Your task to perform on an android device: Open Yahoo.com Image 0: 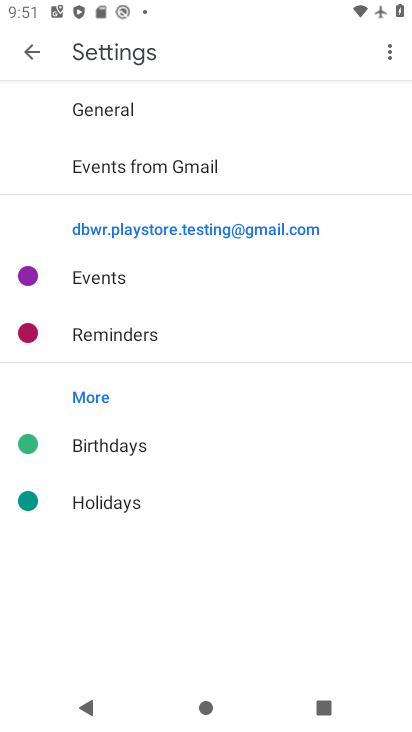
Step 0: press home button
Your task to perform on an android device: Open Yahoo.com Image 1: 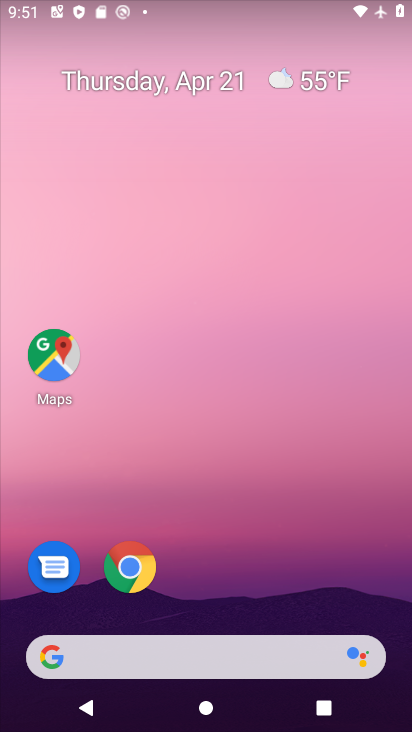
Step 1: click (127, 567)
Your task to perform on an android device: Open Yahoo.com Image 2: 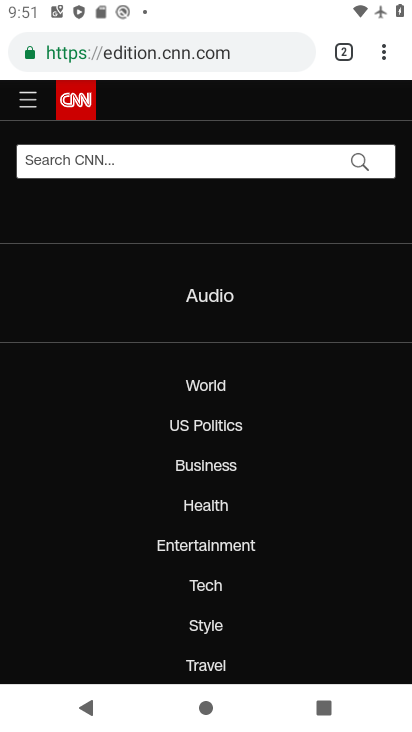
Step 2: click (238, 54)
Your task to perform on an android device: Open Yahoo.com Image 3: 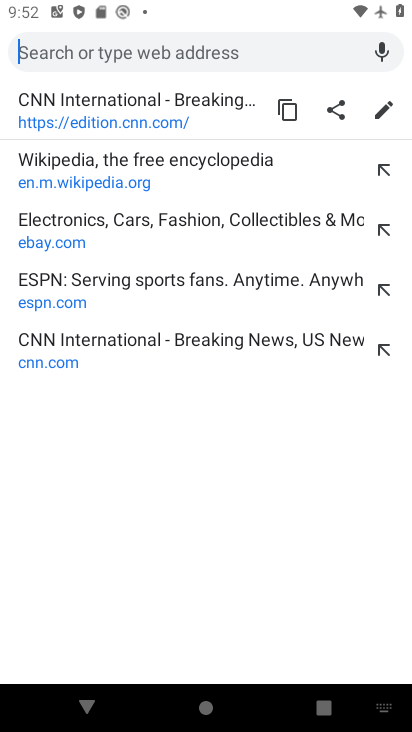
Step 3: type "yahoo.com"
Your task to perform on an android device: Open Yahoo.com Image 4: 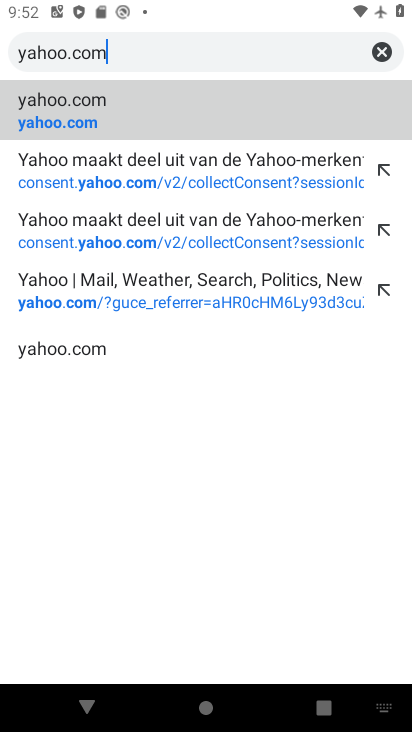
Step 4: click (58, 121)
Your task to perform on an android device: Open Yahoo.com Image 5: 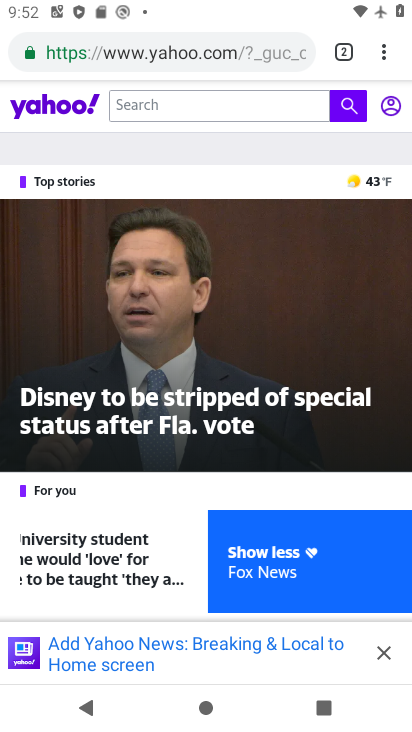
Step 5: task complete